Your task to perform on an android device: Do I have any events tomorrow? Image 0: 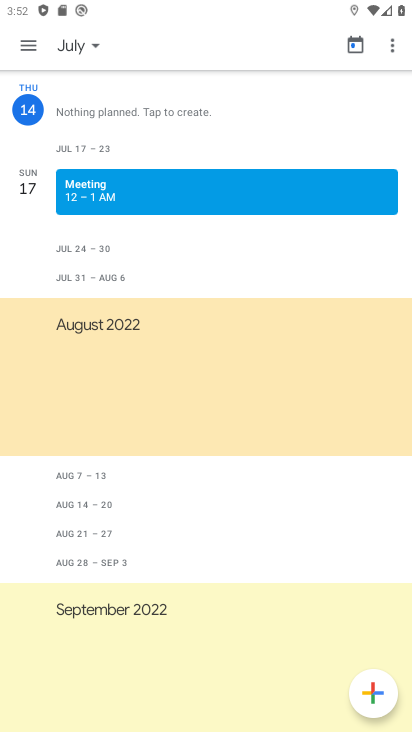
Step 0: press home button
Your task to perform on an android device: Do I have any events tomorrow? Image 1: 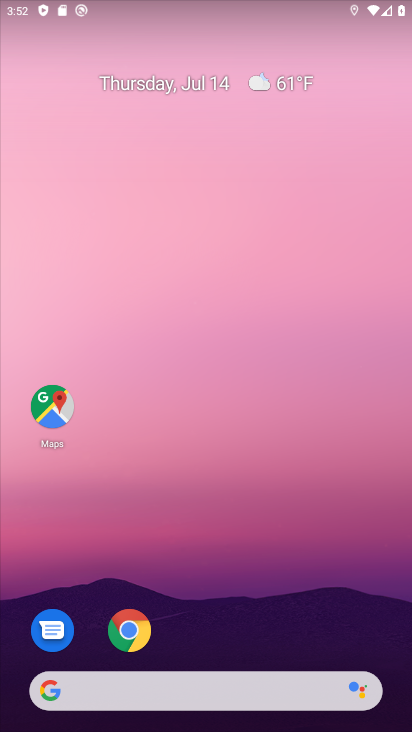
Step 1: drag from (221, 640) to (140, 172)
Your task to perform on an android device: Do I have any events tomorrow? Image 2: 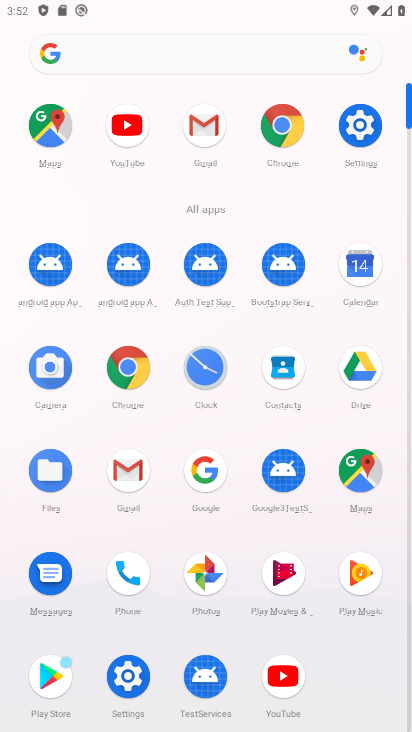
Step 2: click (367, 267)
Your task to perform on an android device: Do I have any events tomorrow? Image 3: 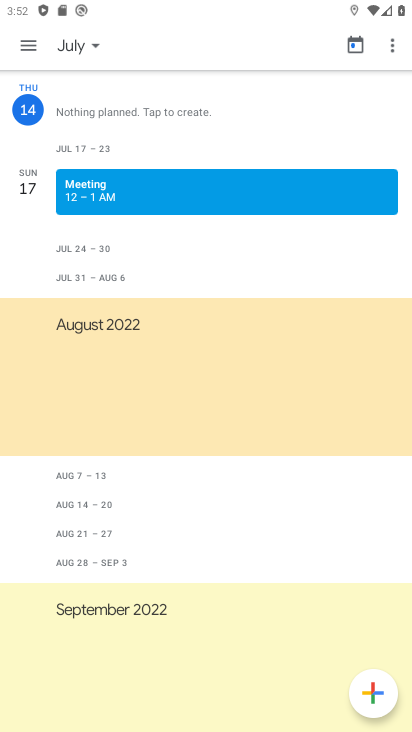
Step 3: click (25, 55)
Your task to perform on an android device: Do I have any events tomorrow? Image 4: 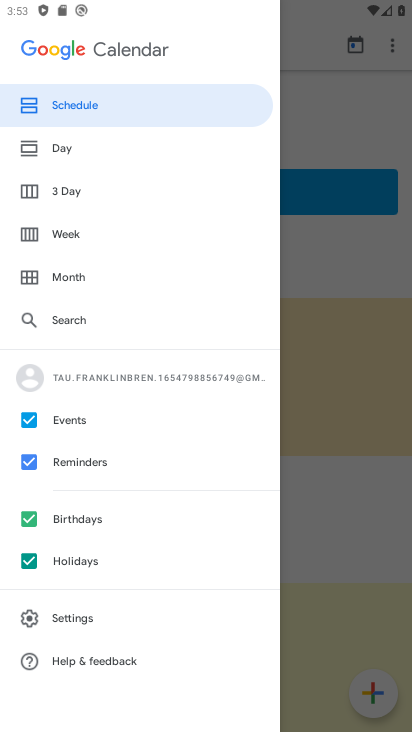
Step 4: click (30, 560)
Your task to perform on an android device: Do I have any events tomorrow? Image 5: 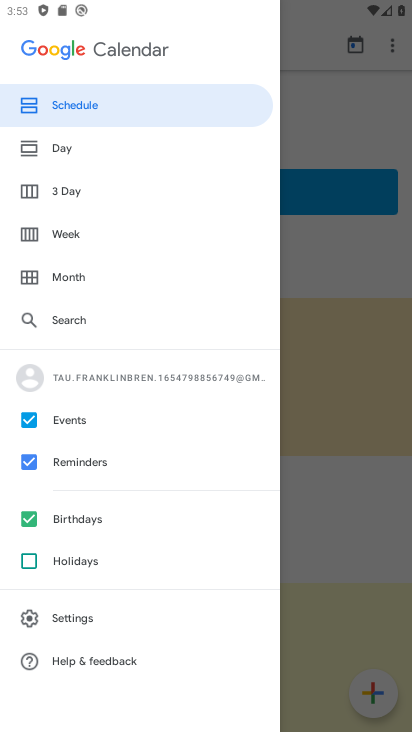
Step 5: click (29, 521)
Your task to perform on an android device: Do I have any events tomorrow? Image 6: 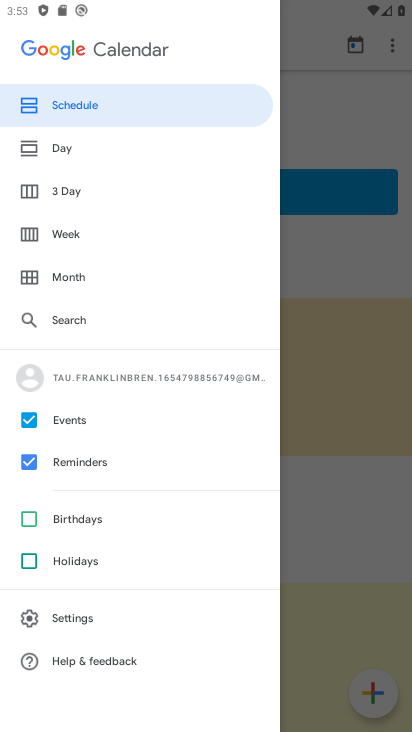
Step 6: click (26, 463)
Your task to perform on an android device: Do I have any events tomorrow? Image 7: 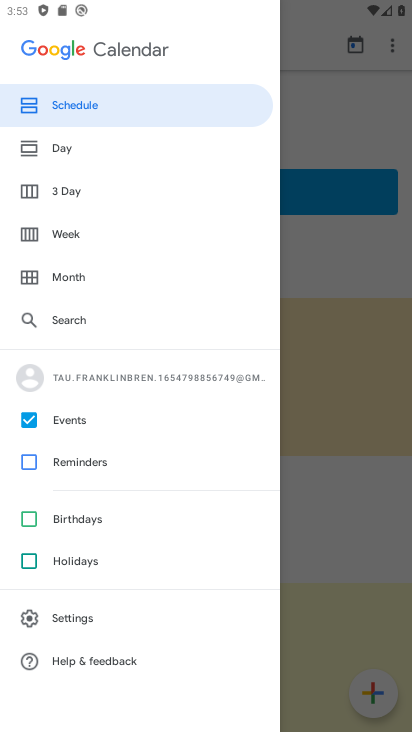
Step 7: click (60, 144)
Your task to perform on an android device: Do I have any events tomorrow? Image 8: 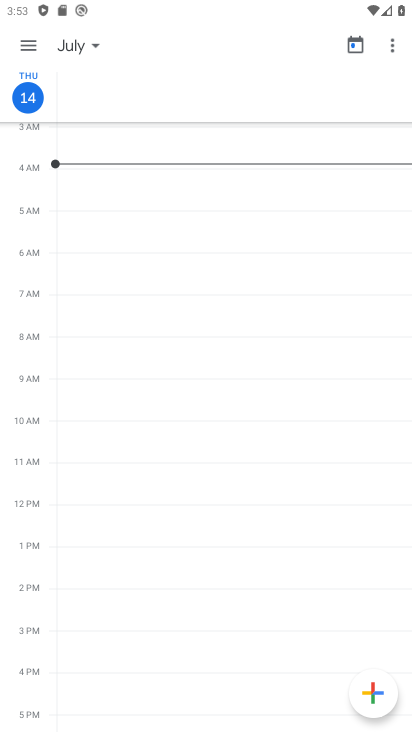
Step 8: task complete